Your task to perform on an android device: manage bookmarks in the chrome app Image 0: 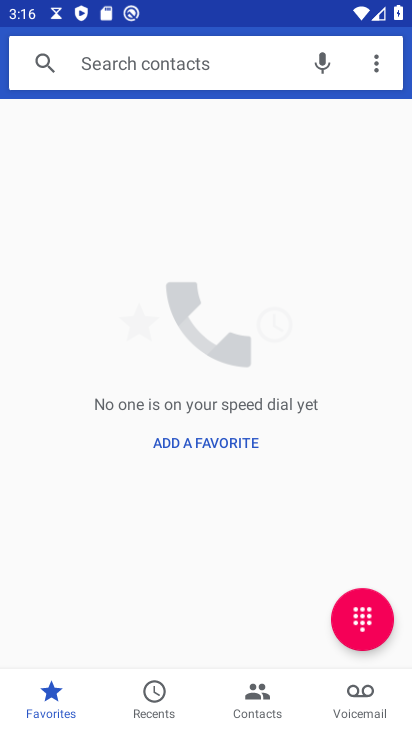
Step 0: press home button
Your task to perform on an android device: manage bookmarks in the chrome app Image 1: 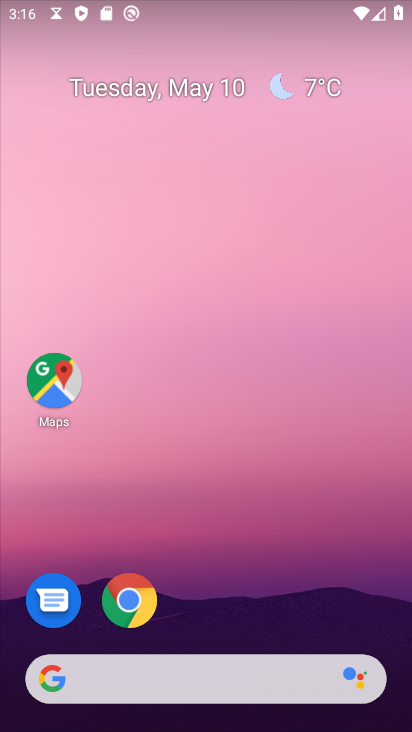
Step 1: click (115, 599)
Your task to perform on an android device: manage bookmarks in the chrome app Image 2: 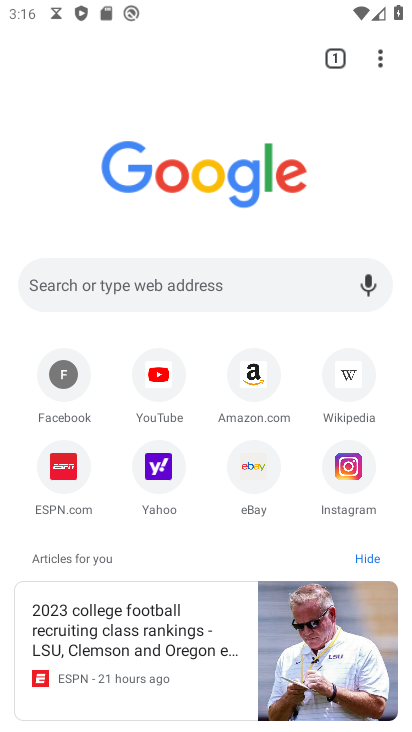
Step 2: click (381, 48)
Your task to perform on an android device: manage bookmarks in the chrome app Image 3: 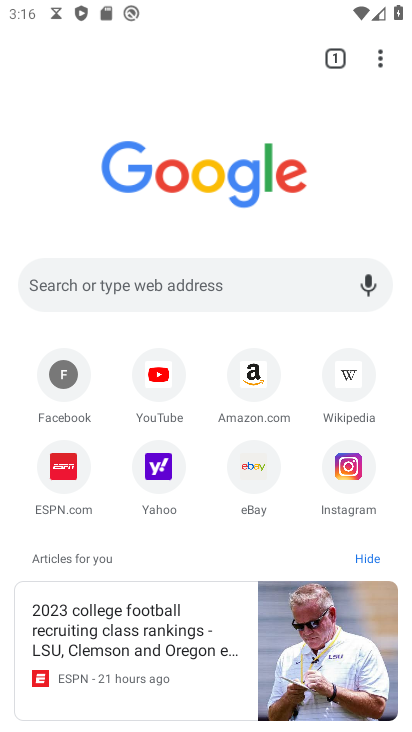
Step 3: click (386, 53)
Your task to perform on an android device: manage bookmarks in the chrome app Image 4: 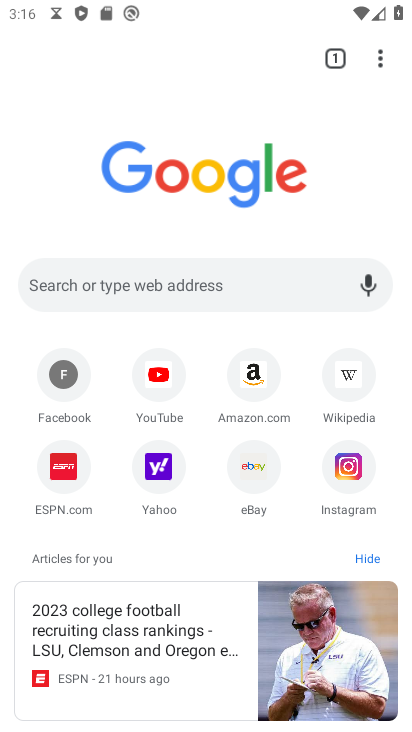
Step 4: click (382, 56)
Your task to perform on an android device: manage bookmarks in the chrome app Image 5: 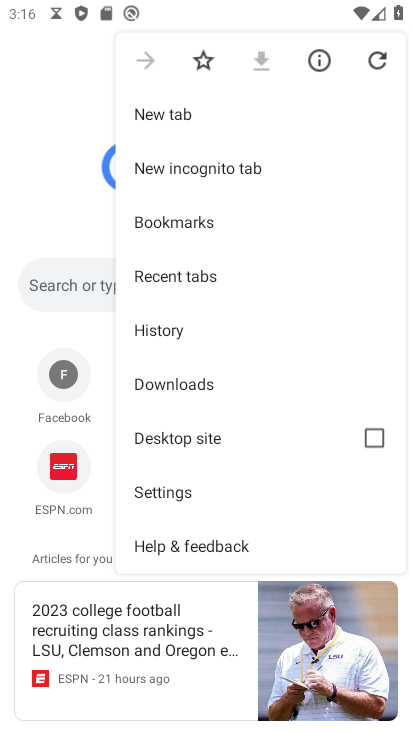
Step 5: click (248, 220)
Your task to perform on an android device: manage bookmarks in the chrome app Image 6: 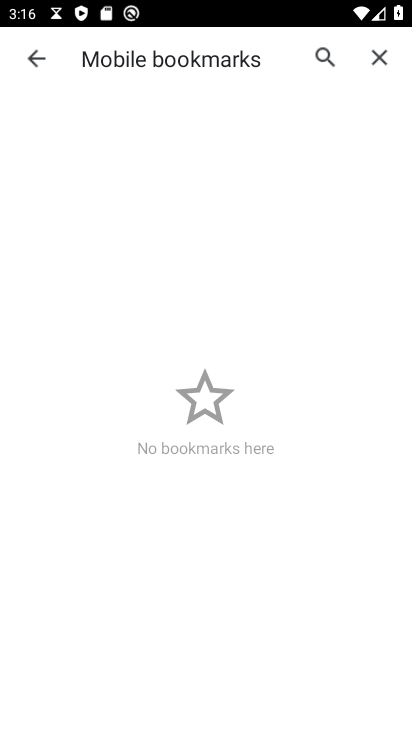
Step 6: task complete